Your task to perform on an android device: empty trash in google photos Image 0: 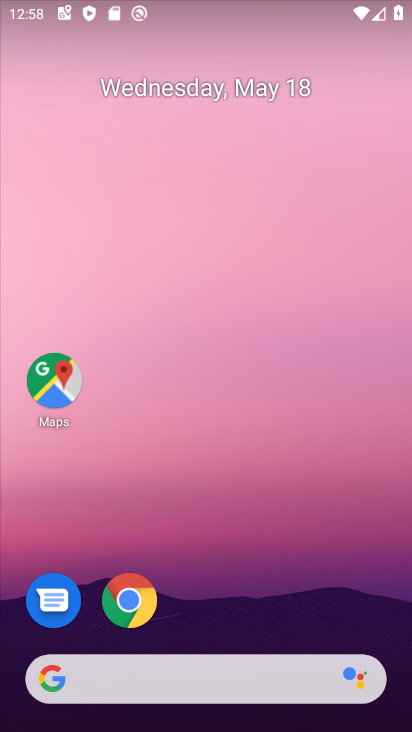
Step 0: drag from (265, 616) to (182, 168)
Your task to perform on an android device: empty trash in google photos Image 1: 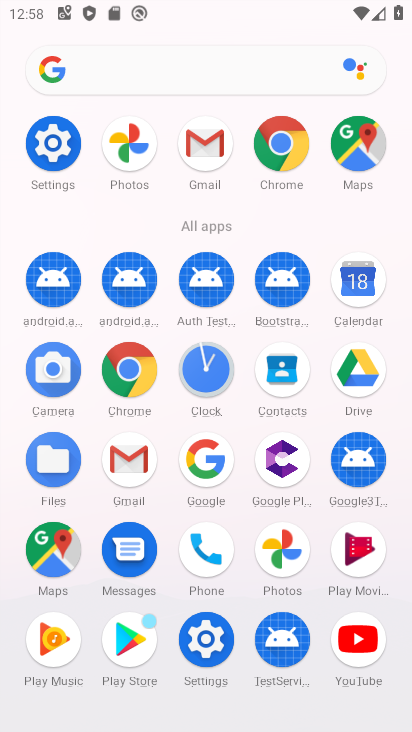
Step 1: click (130, 143)
Your task to perform on an android device: empty trash in google photos Image 2: 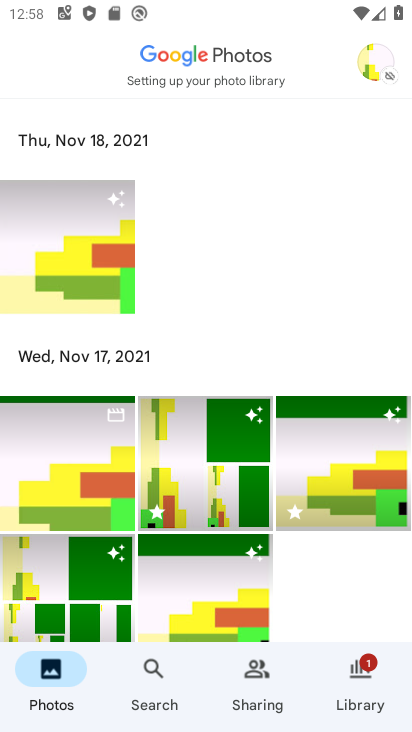
Step 2: click (361, 672)
Your task to perform on an android device: empty trash in google photos Image 3: 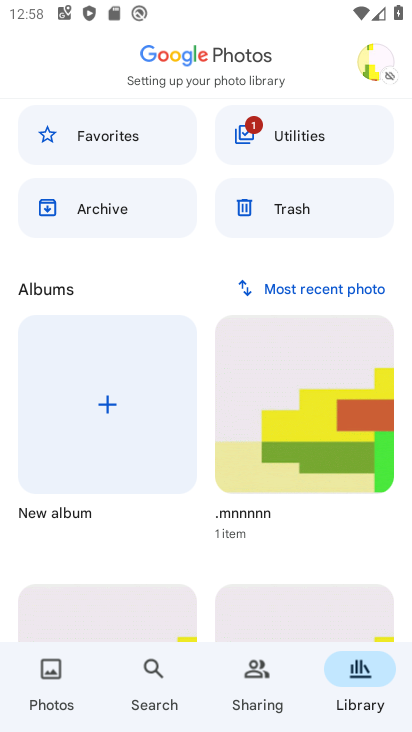
Step 3: click (306, 208)
Your task to perform on an android device: empty trash in google photos Image 4: 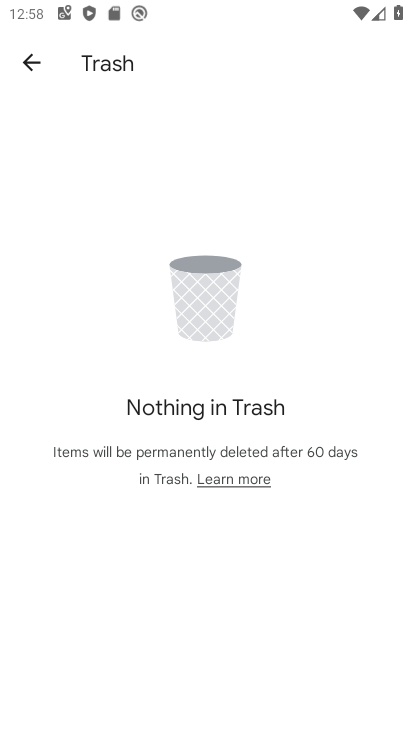
Step 4: task complete